Your task to perform on an android device: turn off javascript in the chrome app Image 0: 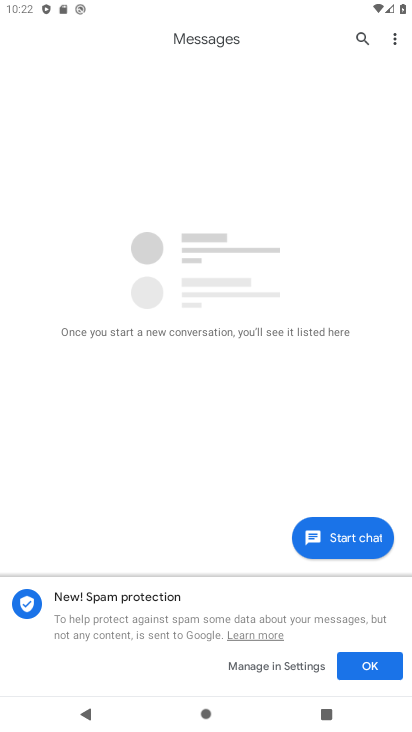
Step 0: press home button
Your task to perform on an android device: turn off javascript in the chrome app Image 1: 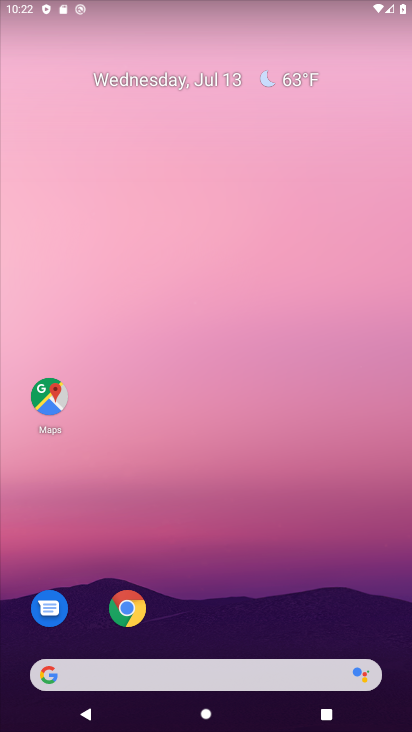
Step 1: drag from (278, 613) to (359, 26)
Your task to perform on an android device: turn off javascript in the chrome app Image 2: 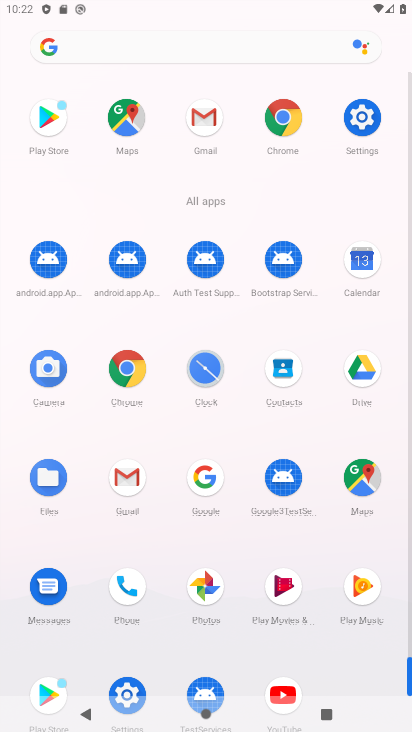
Step 2: click (132, 360)
Your task to perform on an android device: turn off javascript in the chrome app Image 3: 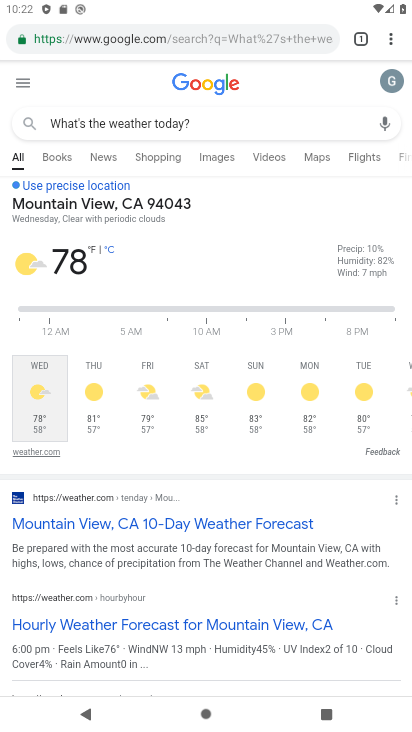
Step 3: drag from (396, 38) to (247, 426)
Your task to perform on an android device: turn off javascript in the chrome app Image 4: 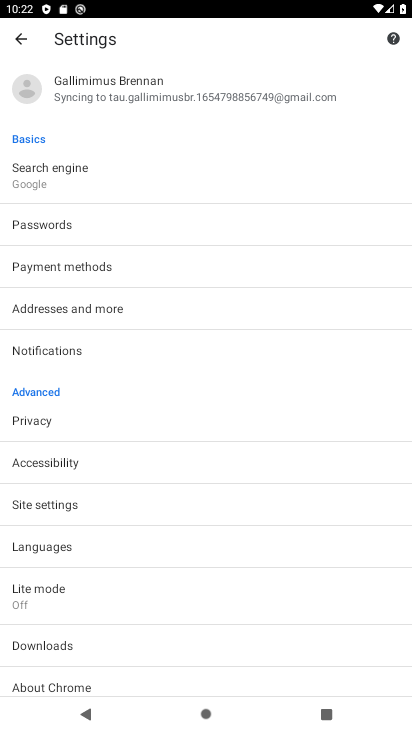
Step 4: click (77, 509)
Your task to perform on an android device: turn off javascript in the chrome app Image 5: 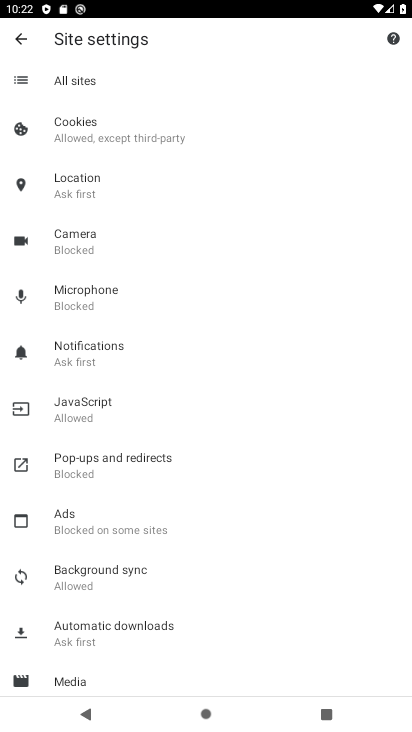
Step 5: click (97, 411)
Your task to perform on an android device: turn off javascript in the chrome app Image 6: 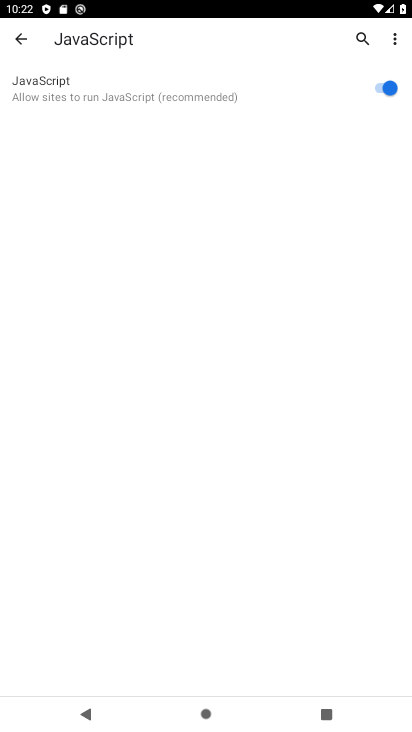
Step 6: click (307, 85)
Your task to perform on an android device: turn off javascript in the chrome app Image 7: 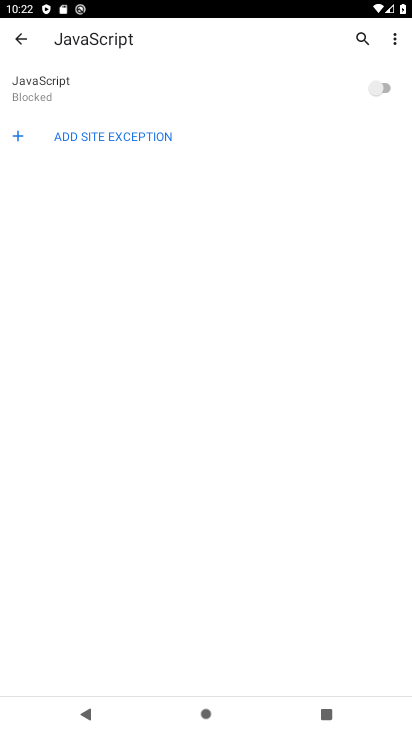
Step 7: task complete